Your task to perform on an android device: open wifi settings Image 0: 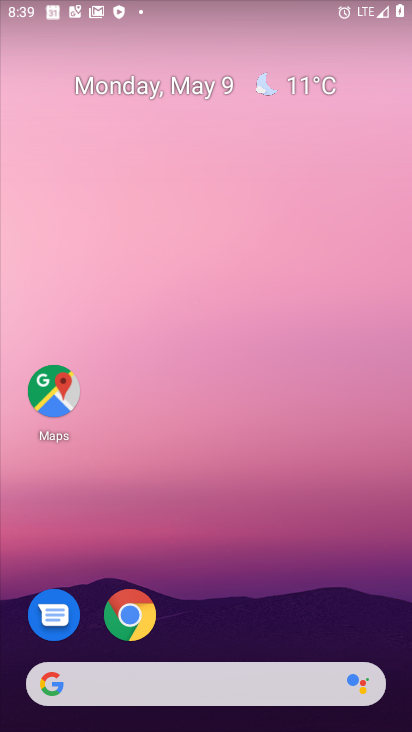
Step 0: drag from (226, 14) to (103, 525)
Your task to perform on an android device: open wifi settings Image 1: 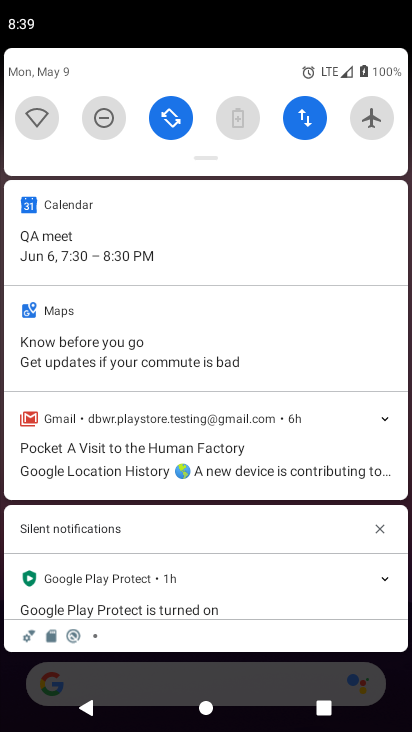
Step 1: click (39, 135)
Your task to perform on an android device: open wifi settings Image 2: 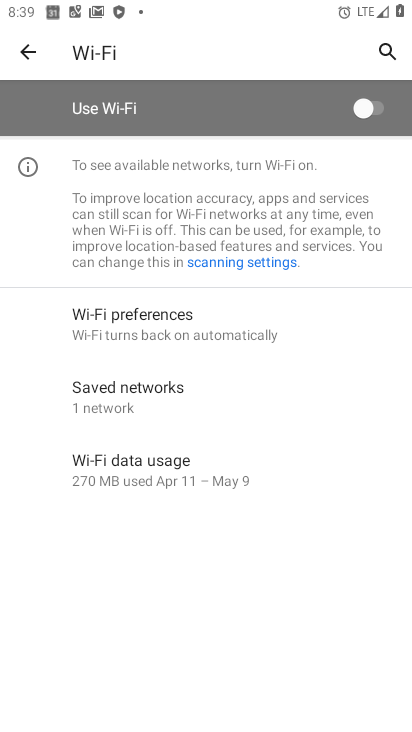
Step 2: task complete